Your task to perform on an android device: Go to network settings Image 0: 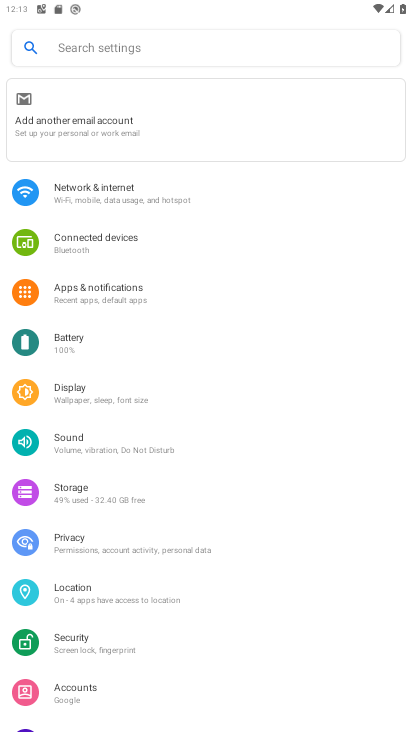
Step 0: click (117, 195)
Your task to perform on an android device: Go to network settings Image 1: 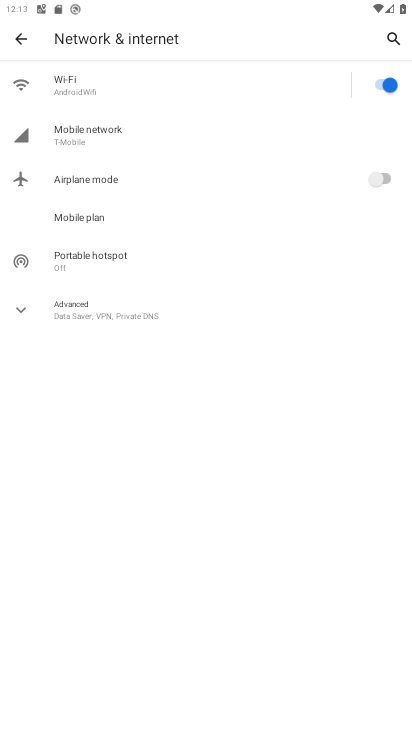
Step 1: click (121, 147)
Your task to perform on an android device: Go to network settings Image 2: 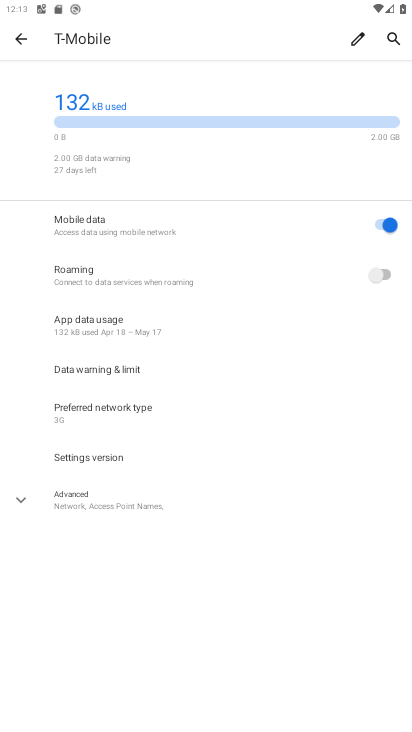
Step 2: click (132, 494)
Your task to perform on an android device: Go to network settings Image 3: 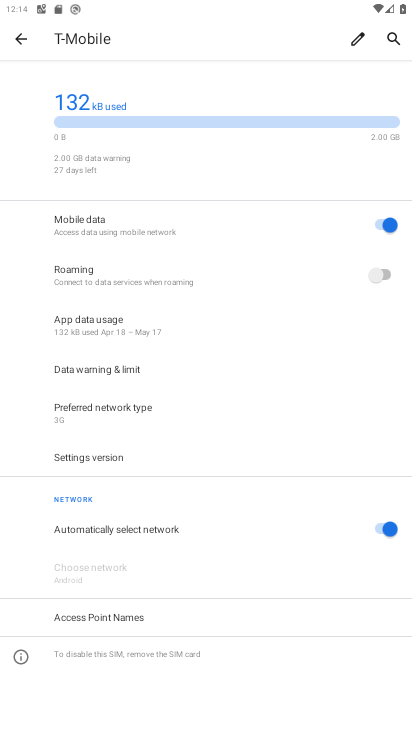
Step 3: task complete